Your task to perform on an android device: Do I have any events tomorrow? Image 0: 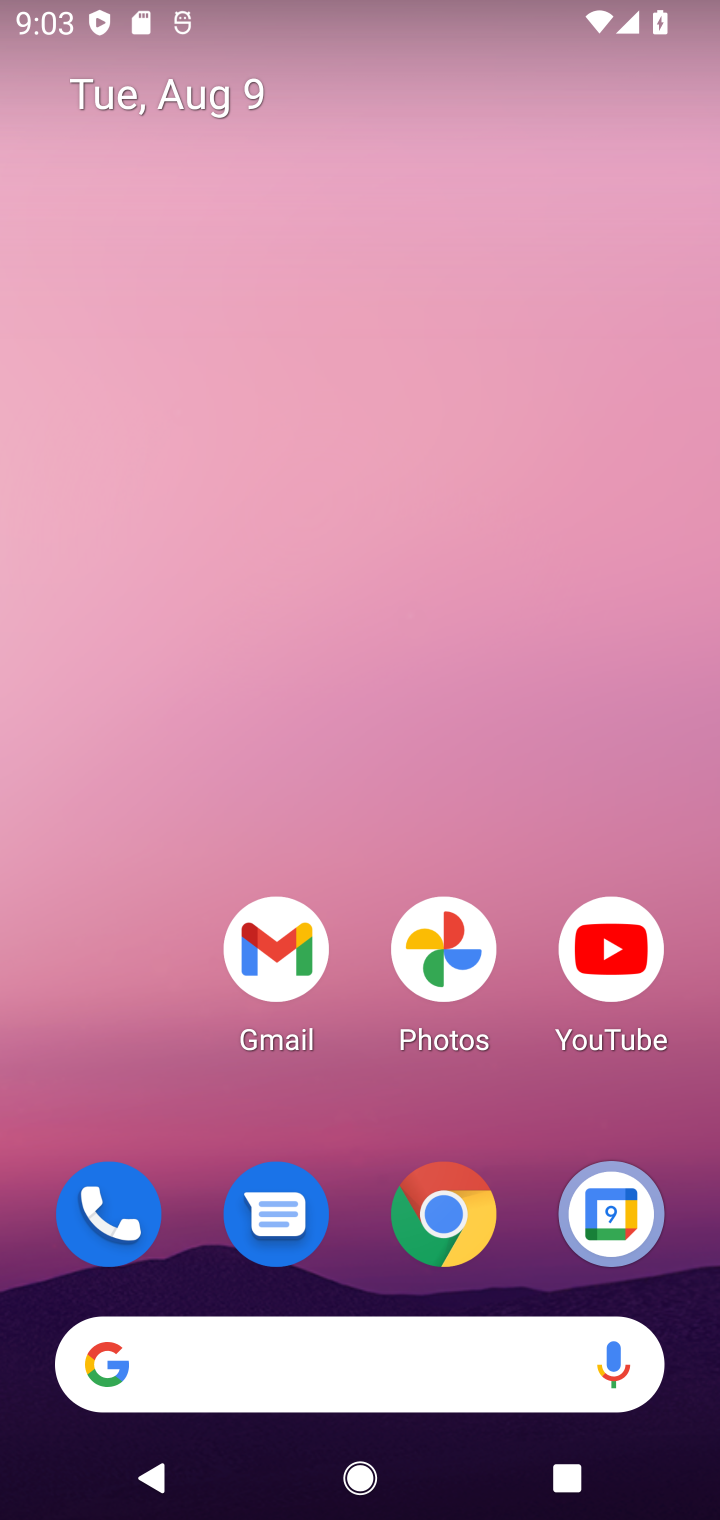
Step 0: drag from (77, 1460) to (421, 119)
Your task to perform on an android device: Do I have any events tomorrow? Image 1: 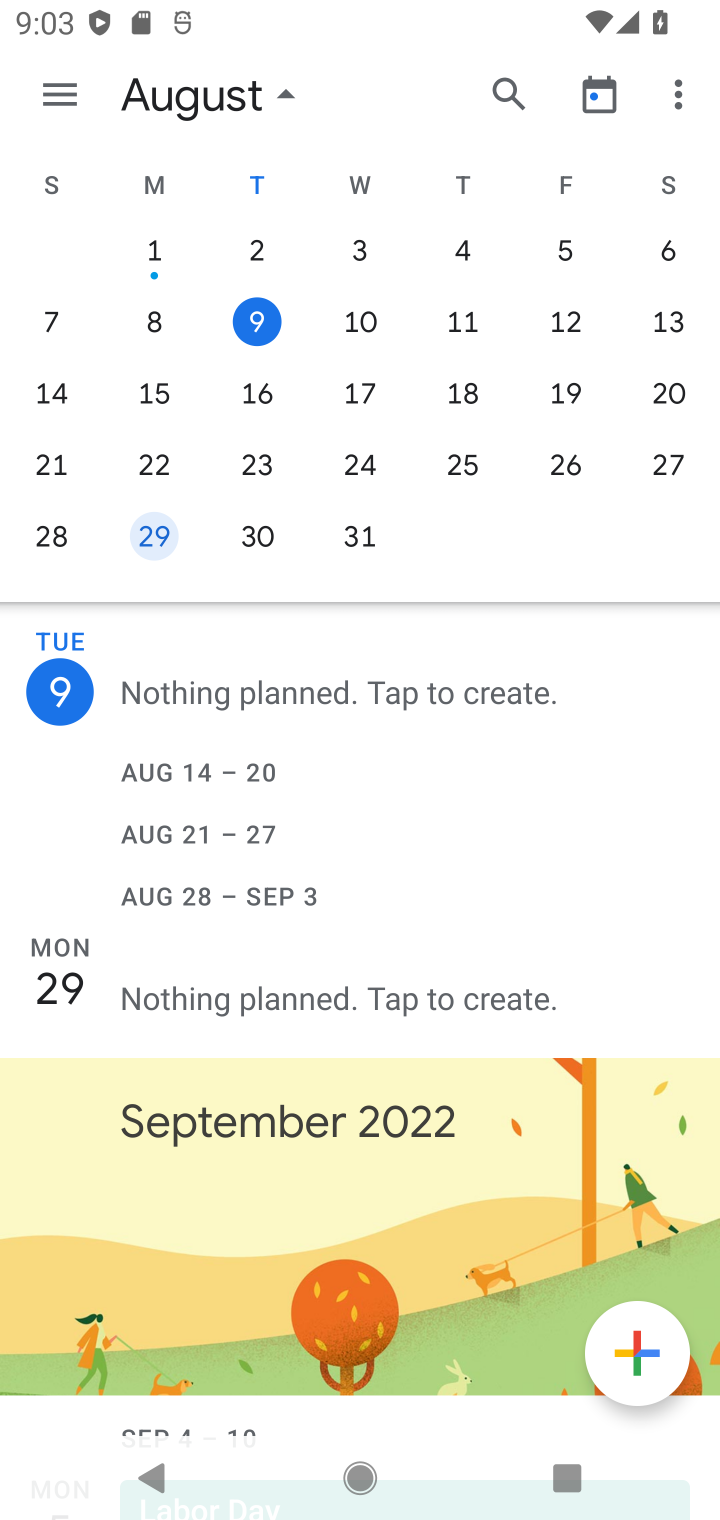
Step 1: task complete